Your task to perform on an android device: Open calendar and show me the second week of next month Image 0: 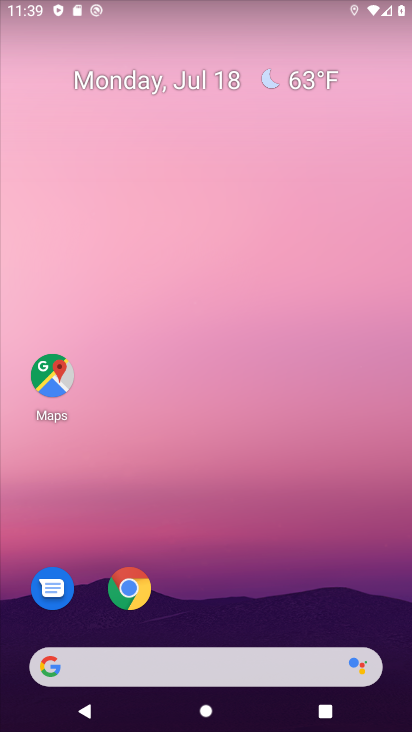
Step 0: drag from (232, 591) to (258, 36)
Your task to perform on an android device: Open calendar and show me the second week of next month Image 1: 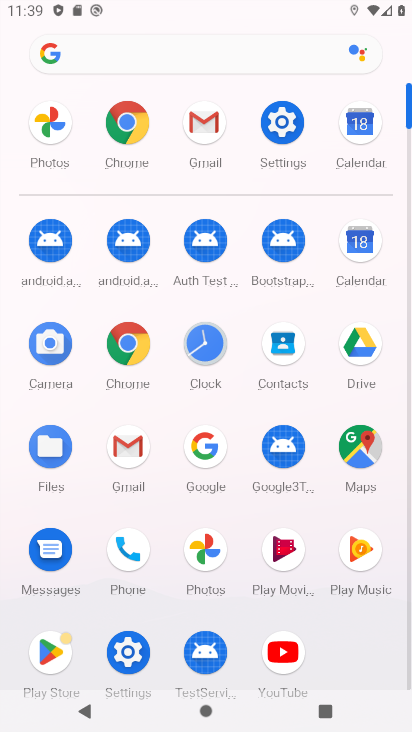
Step 1: click (356, 245)
Your task to perform on an android device: Open calendar and show me the second week of next month Image 2: 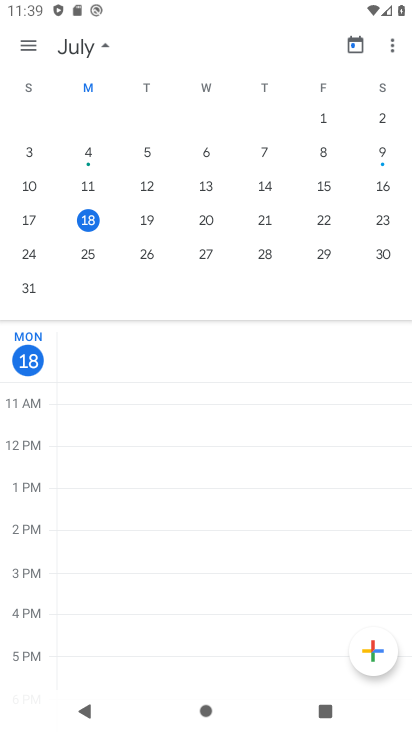
Step 2: drag from (302, 208) to (14, 197)
Your task to perform on an android device: Open calendar and show me the second week of next month Image 3: 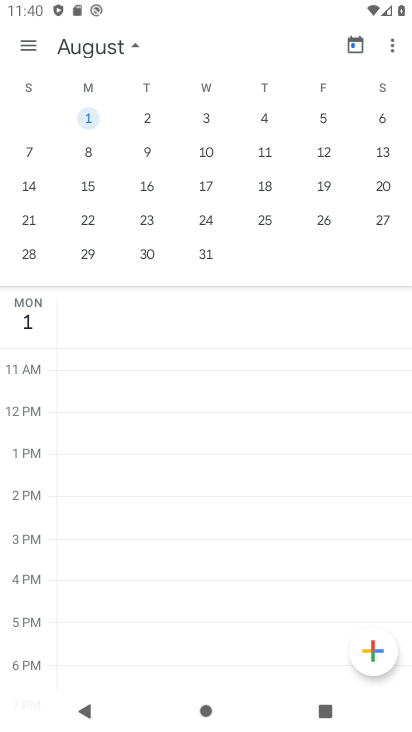
Step 3: click (35, 189)
Your task to perform on an android device: Open calendar and show me the second week of next month Image 4: 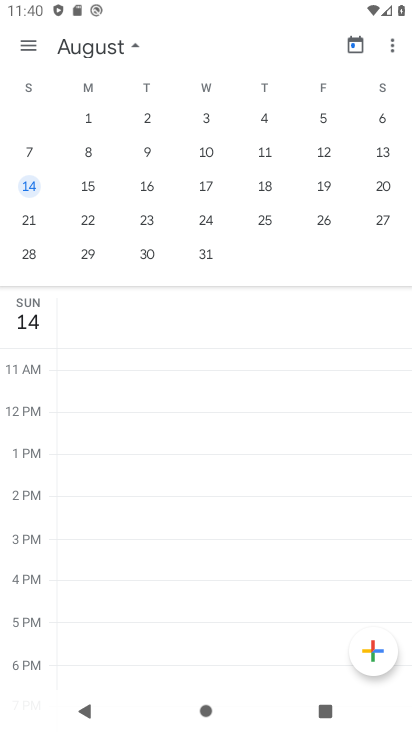
Step 4: task complete